Your task to perform on an android device: Go to Android settings Image 0: 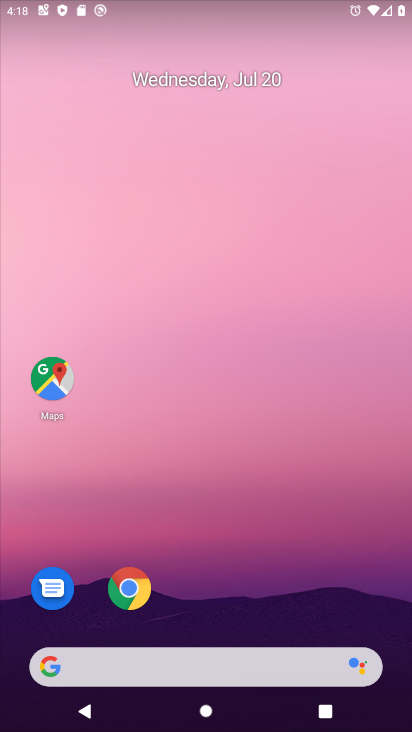
Step 0: drag from (249, 557) to (277, 72)
Your task to perform on an android device: Go to Android settings Image 1: 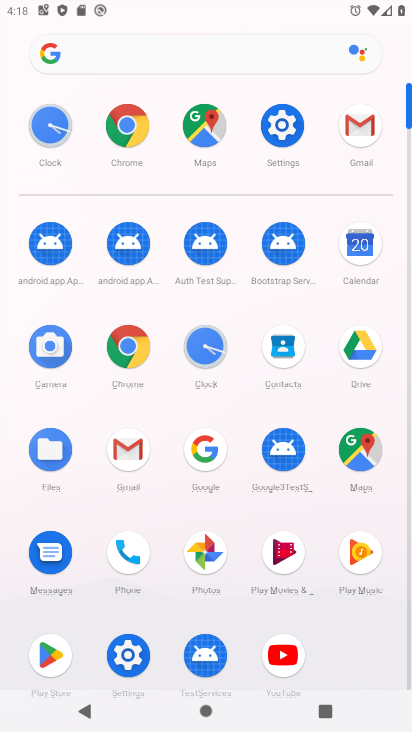
Step 1: click (273, 125)
Your task to perform on an android device: Go to Android settings Image 2: 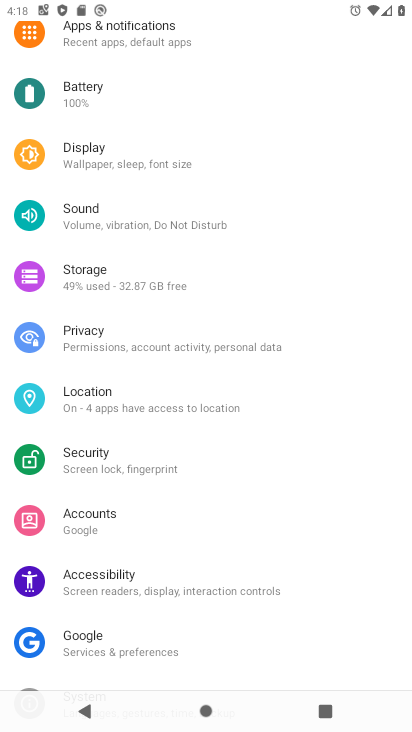
Step 2: task complete